Your task to perform on an android device: toggle location history Image 0: 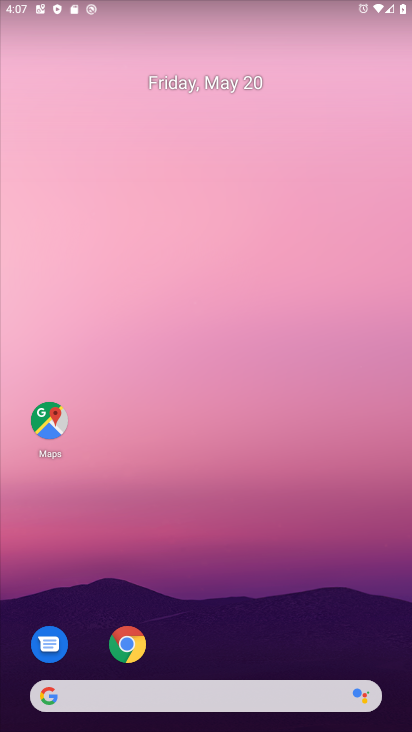
Step 0: drag from (289, 582) to (161, 105)
Your task to perform on an android device: toggle location history Image 1: 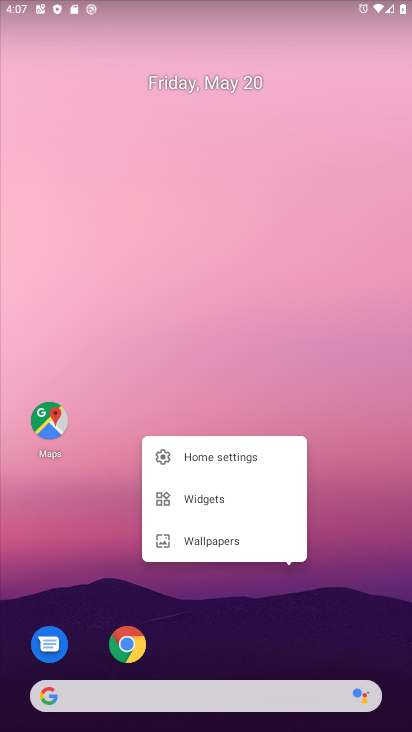
Step 1: click (275, 255)
Your task to perform on an android device: toggle location history Image 2: 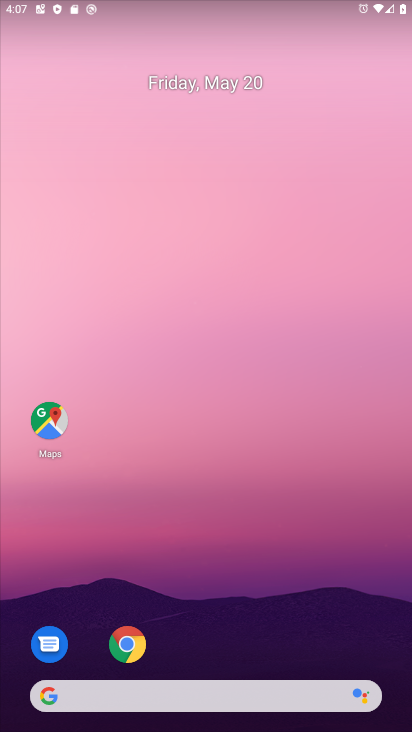
Step 2: drag from (299, 622) to (308, 305)
Your task to perform on an android device: toggle location history Image 3: 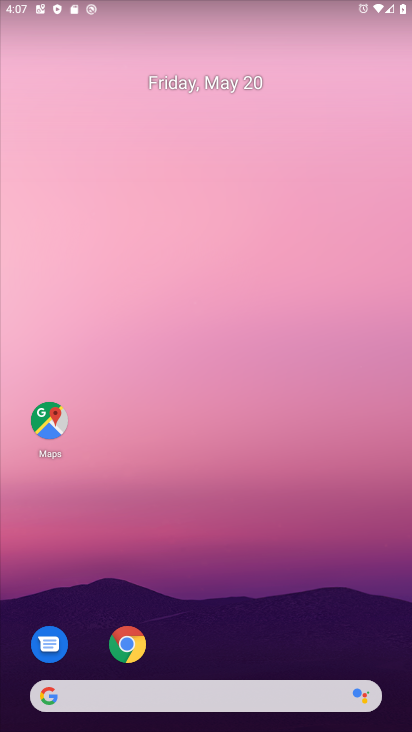
Step 3: drag from (260, 658) to (220, 96)
Your task to perform on an android device: toggle location history Image 4: 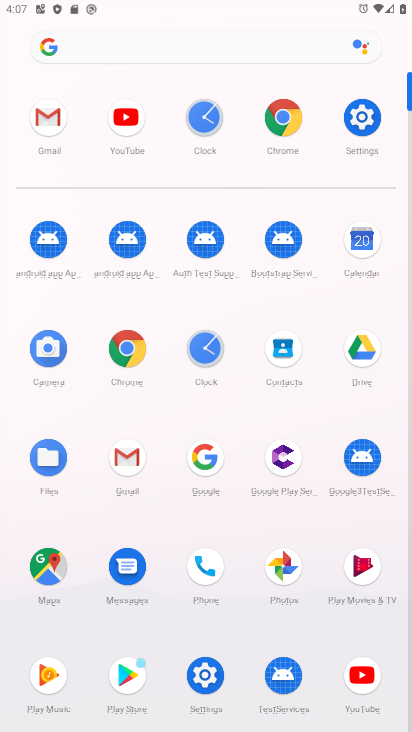
Step 4: click (371, 139)
Your task to perform on an android device: toggle location history Image 5: 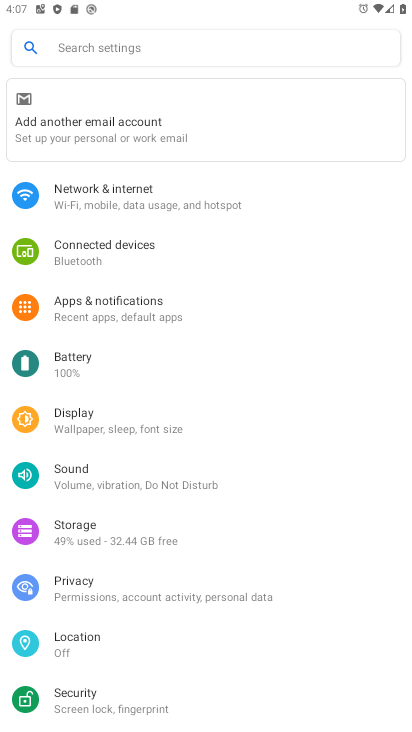
Step 5: click (134, 649)
Your task to perform on an android device: toggle location history Image 6: 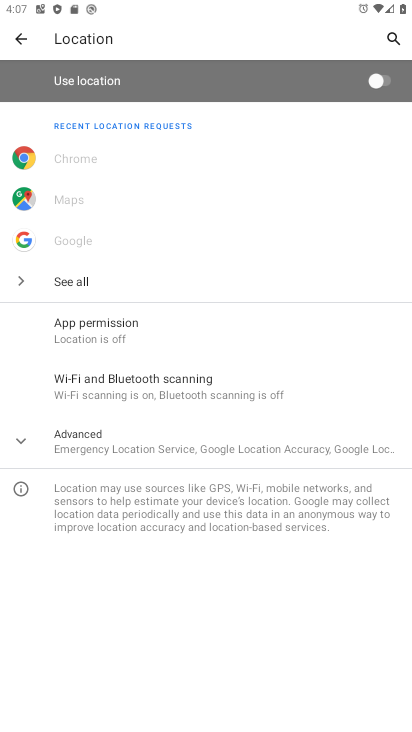
Step 6: click (140, 448)
Your task to perform on an android device: toggle location history Image 7: 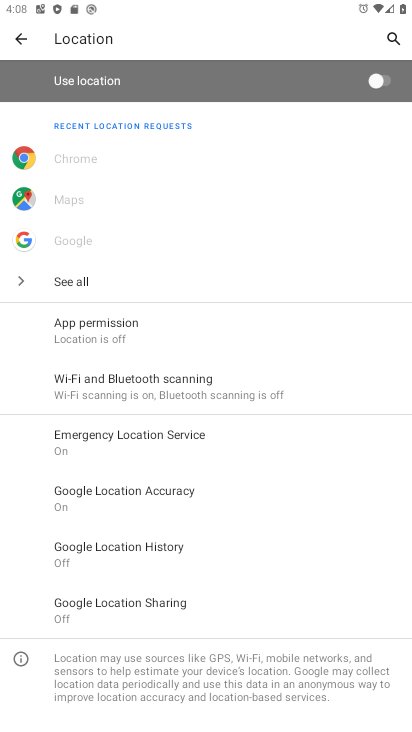
Step 7: click (168, 560)
Your task to perform on an android device: toggle location history Image 8: 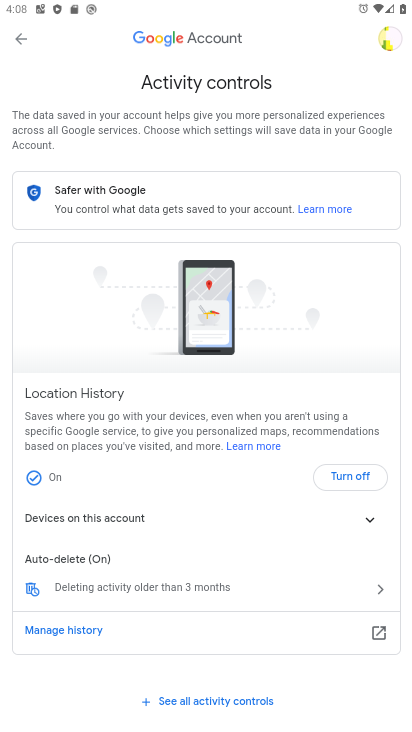
Step 8: click (53, 480)
Your task to perform on an android device: toggle location history Image 9: 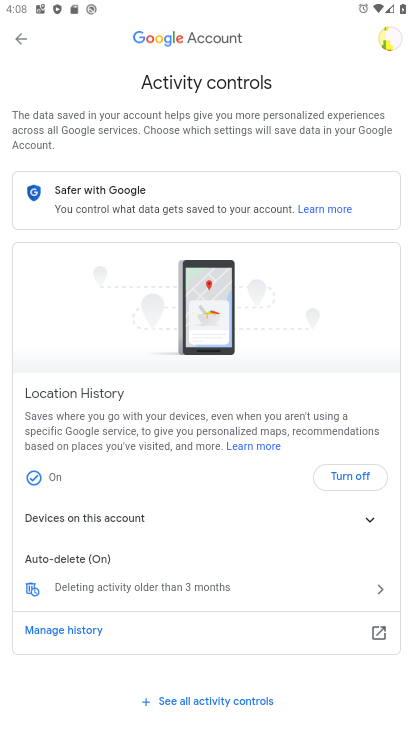
Step 9: click (342, 486)
Your task to perform on an android device: toggle location history Image 10: 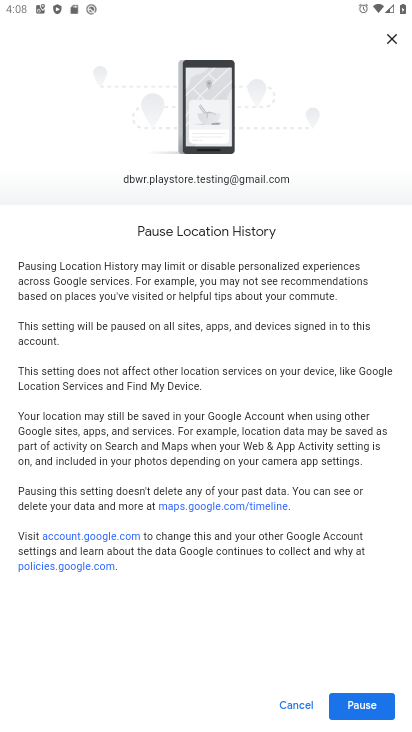
Step 10: click (349, 696)
Your task to perform on an android device: toggle location history Image 11: 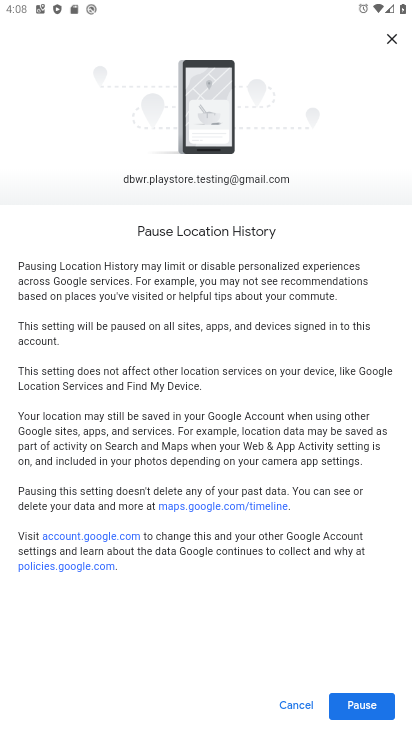
Step 11: click (349, 696)
Your task to perform on an android device: toggle location history Image 12: 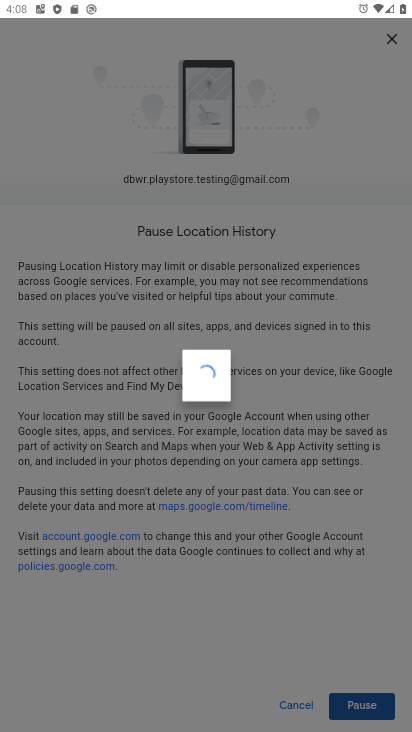
Step 12: click (349, 702)
Your task to perform on an android device: toggle location history Image 13: 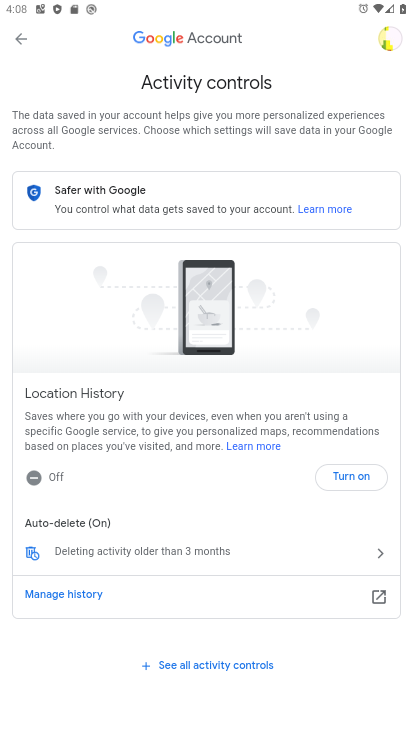
Step 13: task complete